Your task to perform on an android device: toggle show notifications on the lock screen Image 0: 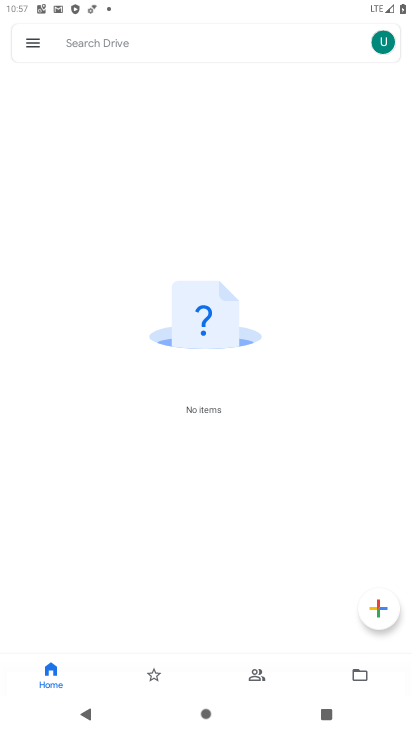
Step 0: press home button
Your task to perform on an android device: toggle show notifications on the lock screen Image 1: 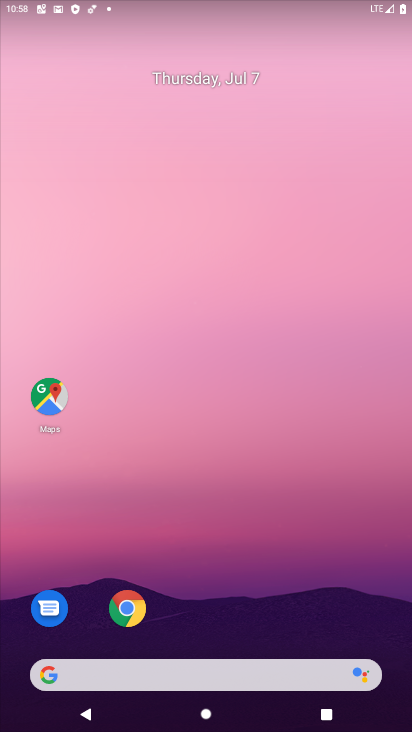
Step 1: drag from (235, 676) to (213, 64)
Your task to perform on an android device: toggle show notifications on the lock screen Image 2: 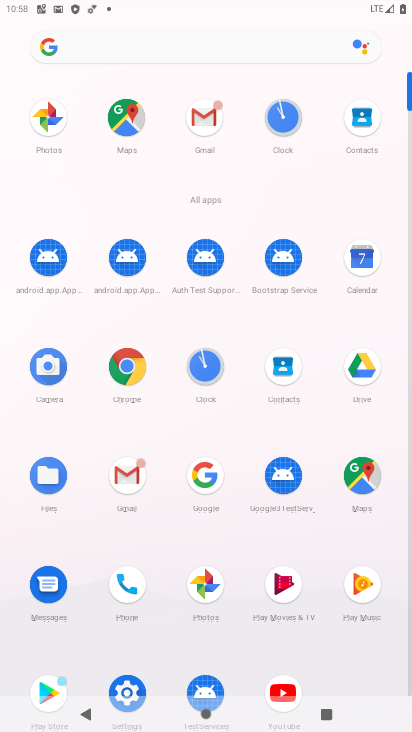
Step 2: click (131, 688)
Your task to perform on an android device: toggle show notifications on the lock screen Image 3: 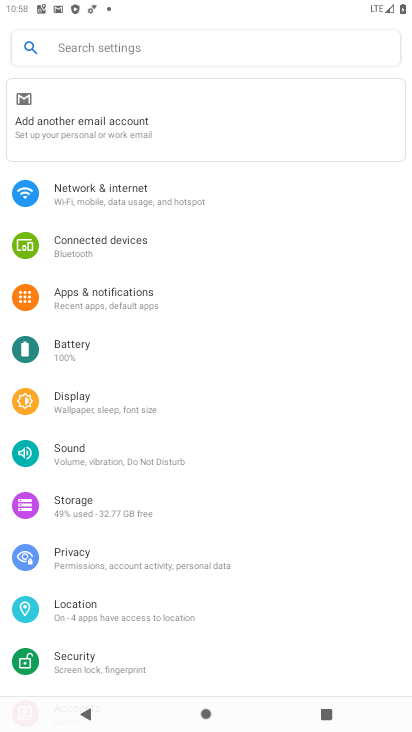
Step 3: click (107, 302)
Your task to perform on an android device: toggle show notifications on the lock screen Image 4: 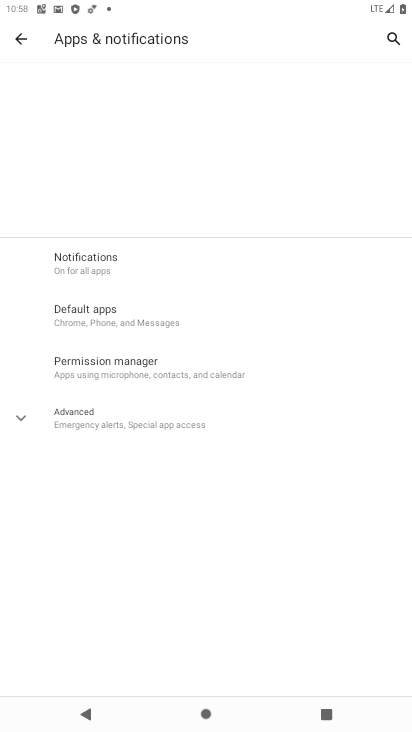
Step 4: click (105, 261)
Your task to perform on an android device: toggle show notifications on the lock screen Image 5: 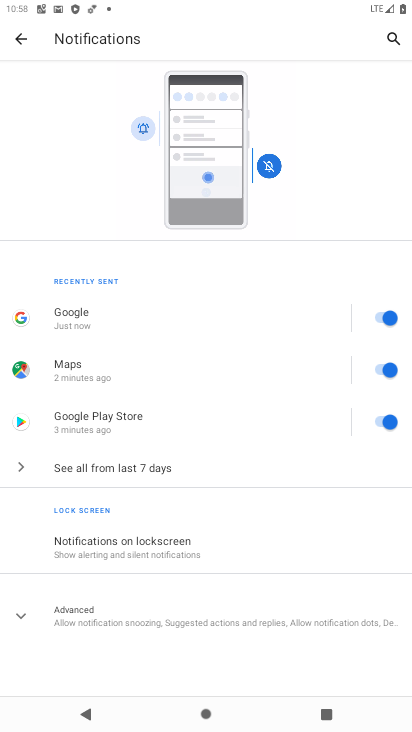
Step 5: click (196, 558)
Your task to perform on an android device: toggle show notifications on the lock screen Image 6: 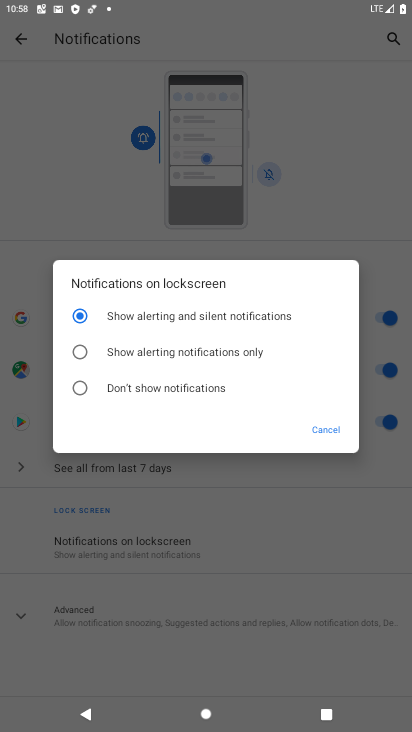
Step 6: click (108, 349)
Your task to perform on an android device: toggle show notifications on the lock screen Image 7: 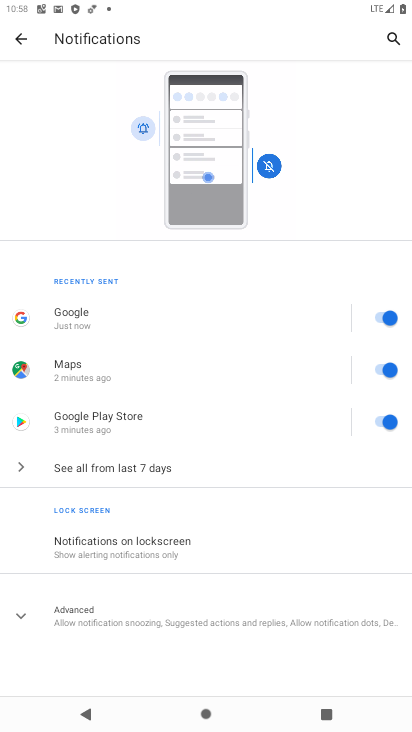
Step 7: task complete